Your task to perform on an android device: What's the weather like in New York? Image 0: 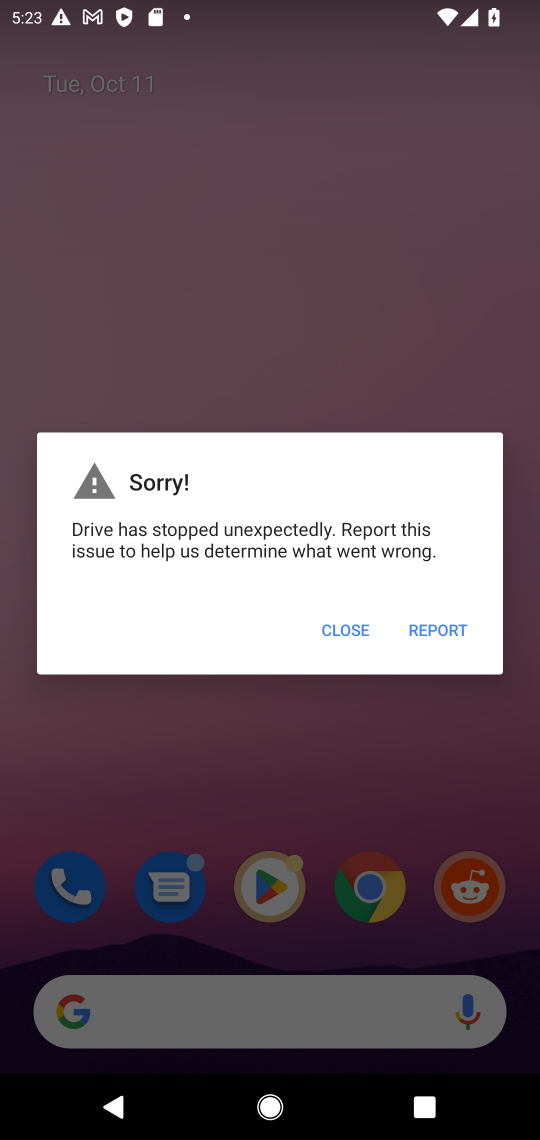
Step 0: press home button
Your task to perform on an android device: What's the weather like in New York? Image 1: 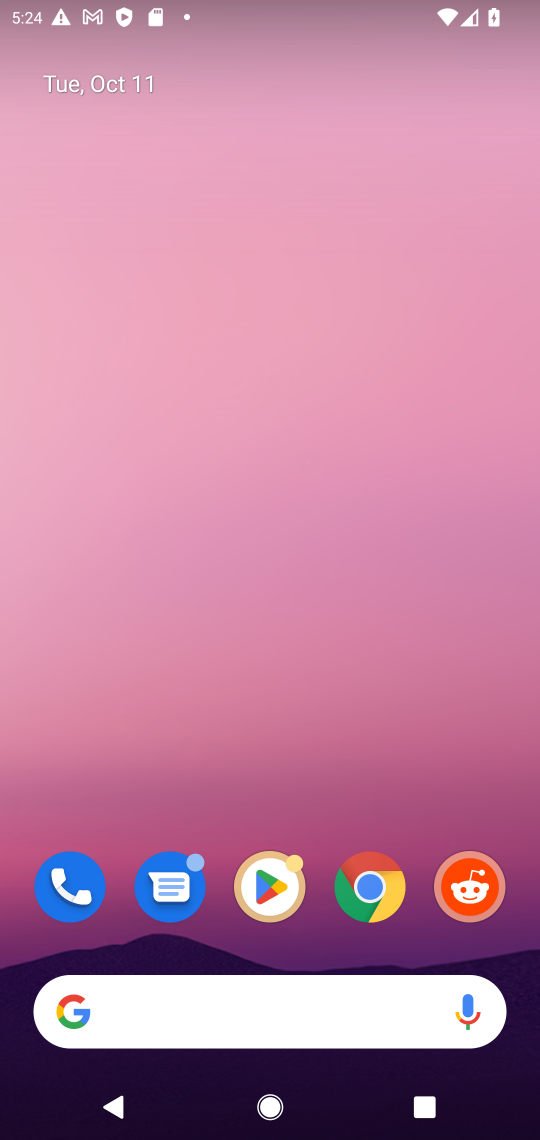
Step 1: click (246, 992)
Your task to perform on an android device: What's the weather like in New York? Image 2: 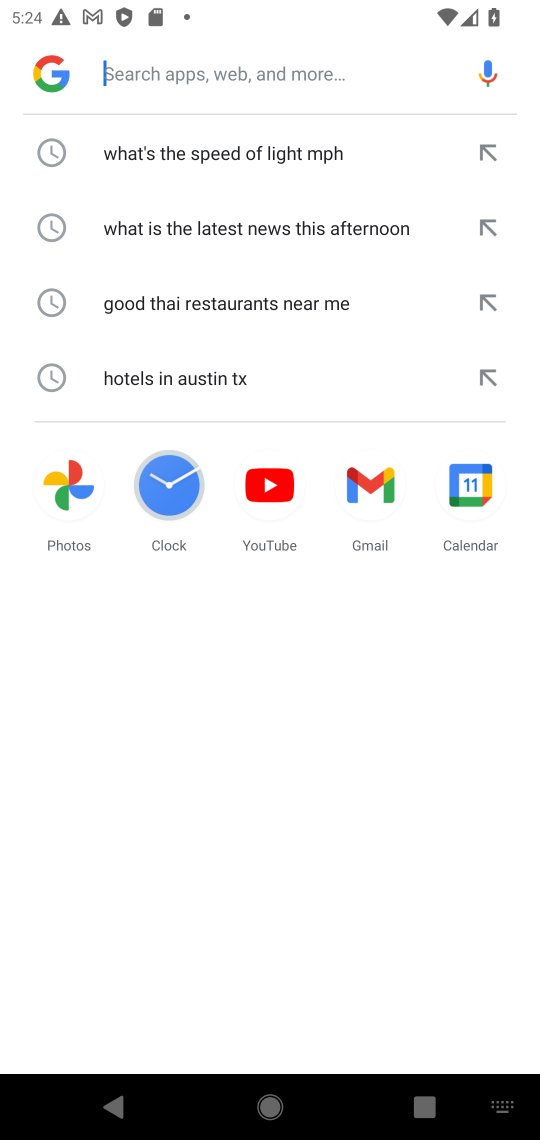
Step 2: type " the weather like in New York"
Your task to perform on an android device: What's the weather like in New York? Image 3: 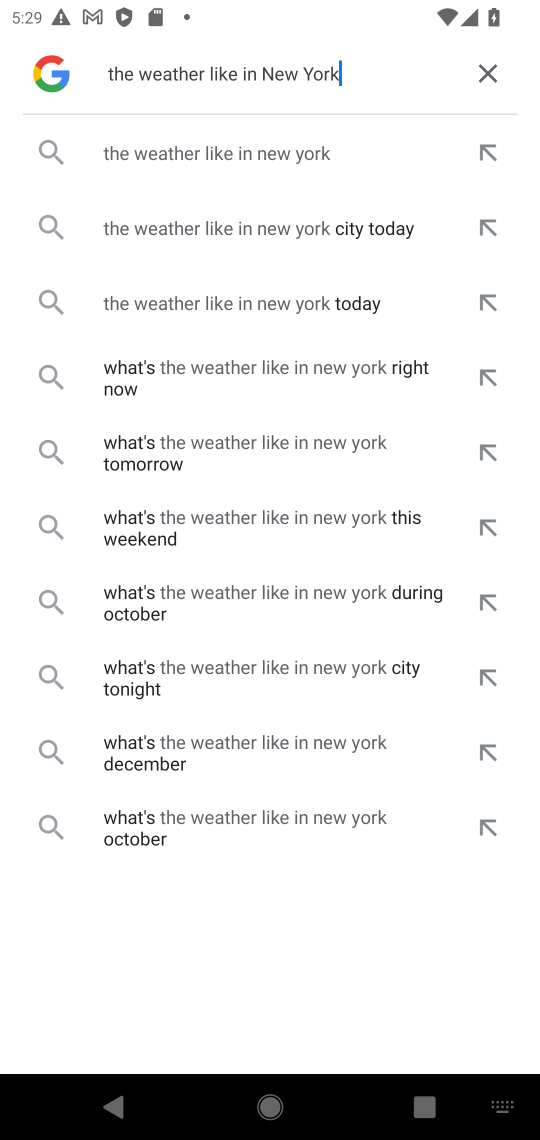
Step 3: click (219, 153)
Your task to perform on an android device: What's the weather like in New York? Image 4: 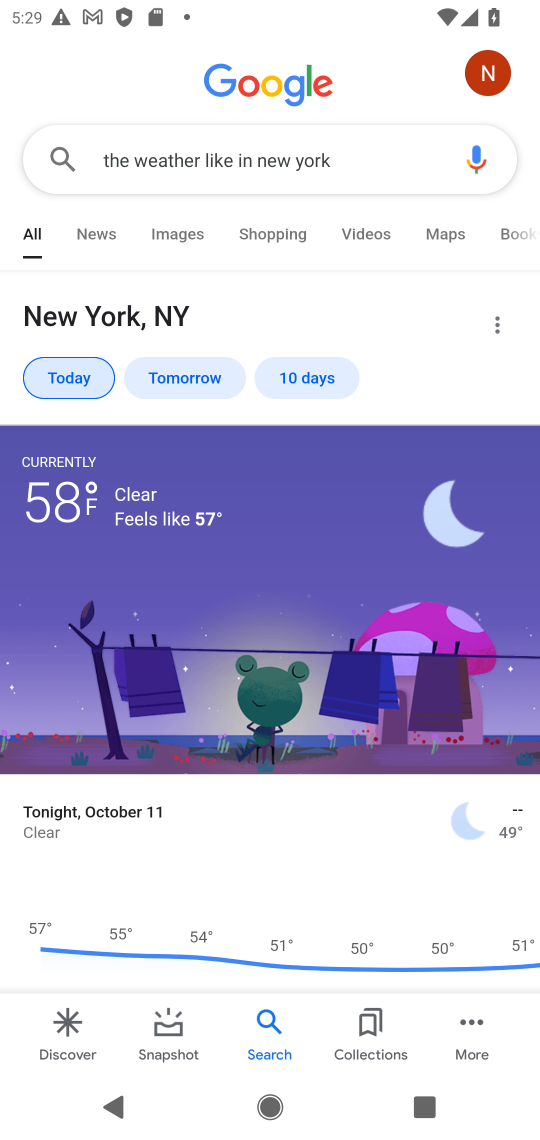
Step 4: task complete